Your task to perform on an android device: open app "AliExpress" Image 0: 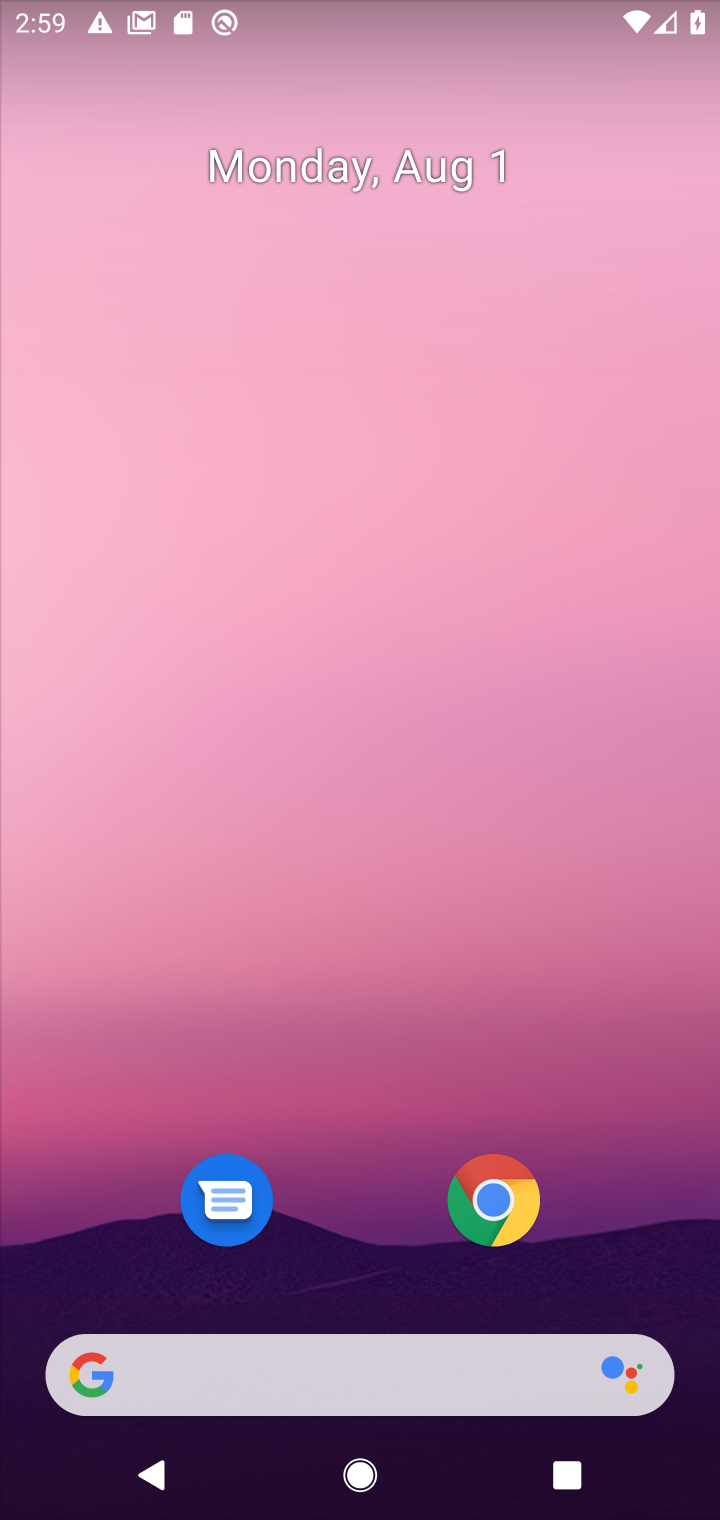
Step 0: drag from (363, 1290) to (479, 45)
Your task to perform on an android device: open app "AliExpress" Image 1: 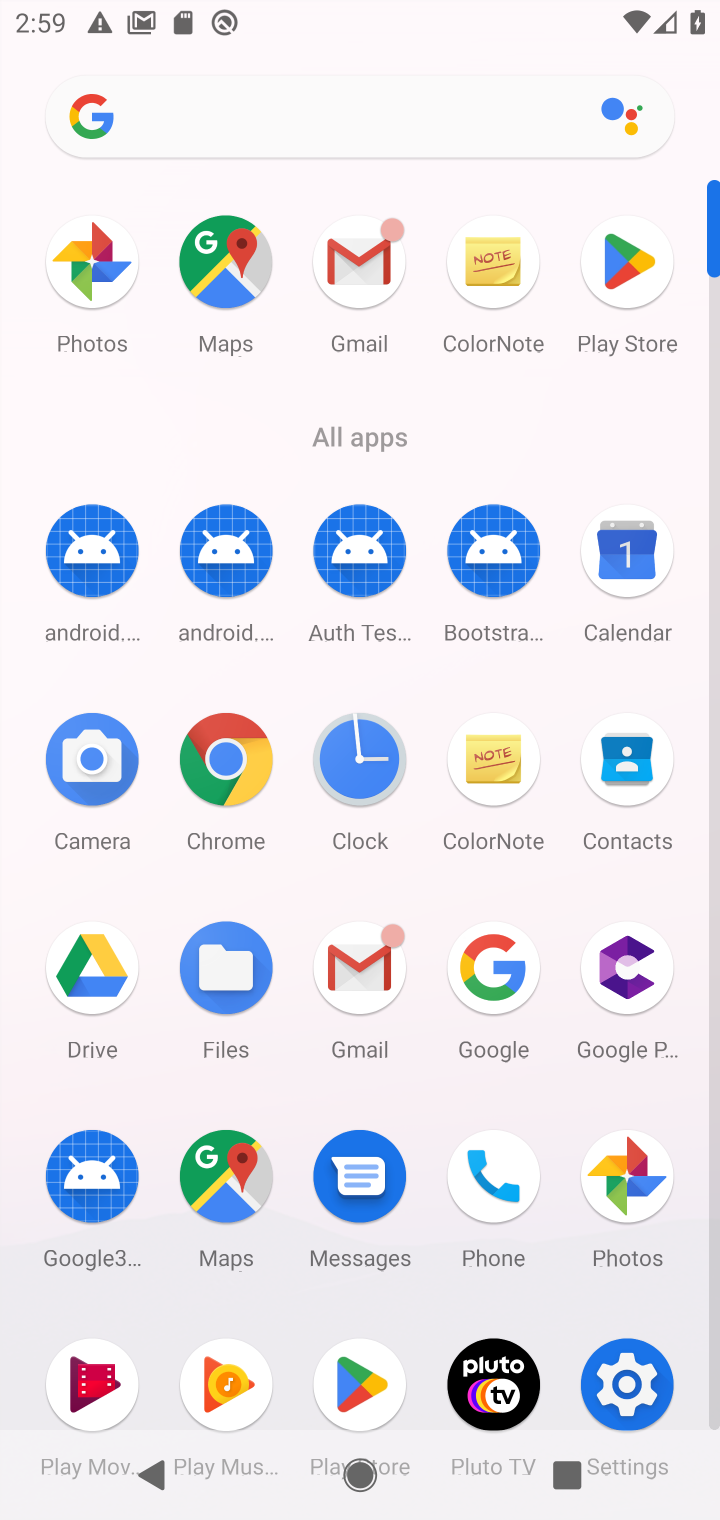
Step 1: click (618, 288)
Your task to perform on an android device: open app "AliExpress" Image 2: 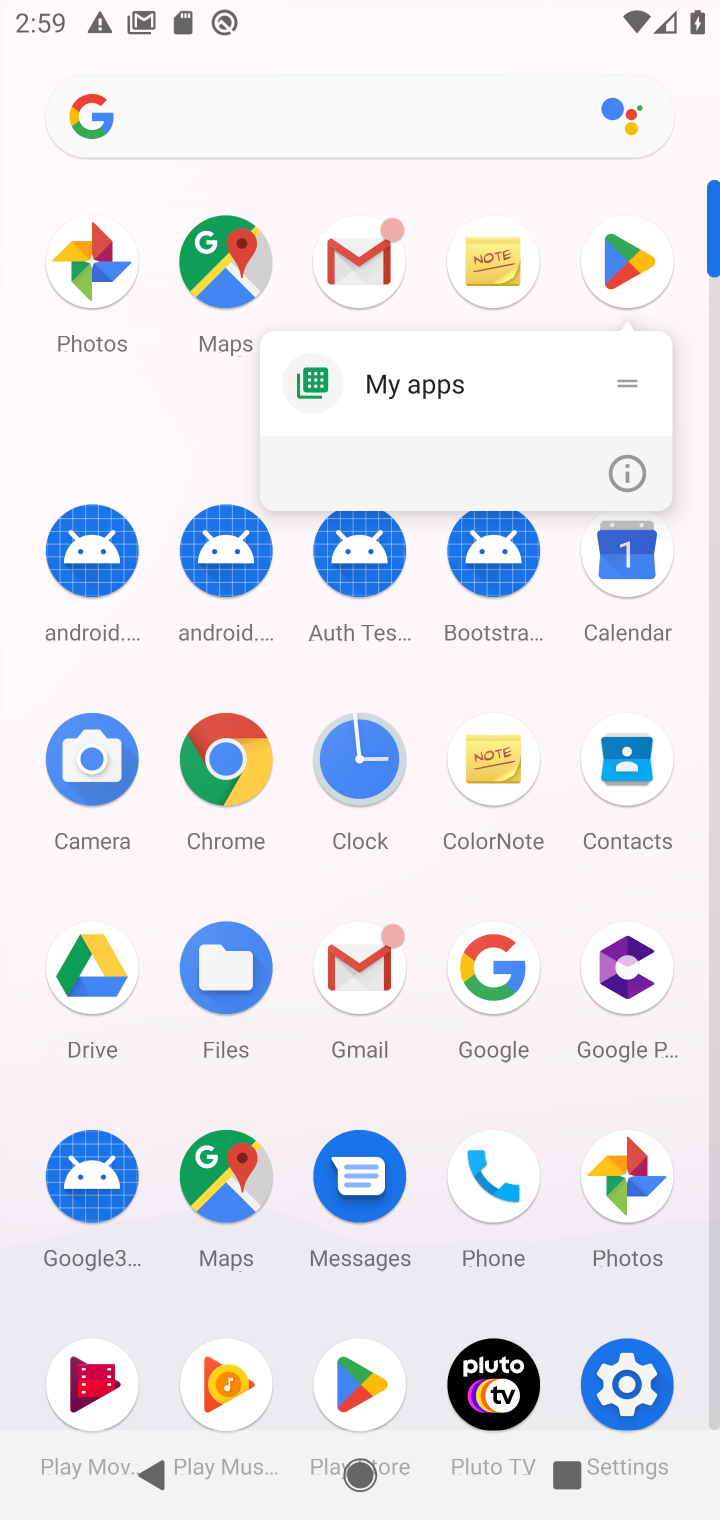
Step 2: click (645, 287)
Your task to perform on an android device: open app "AliExpress" Image 3: 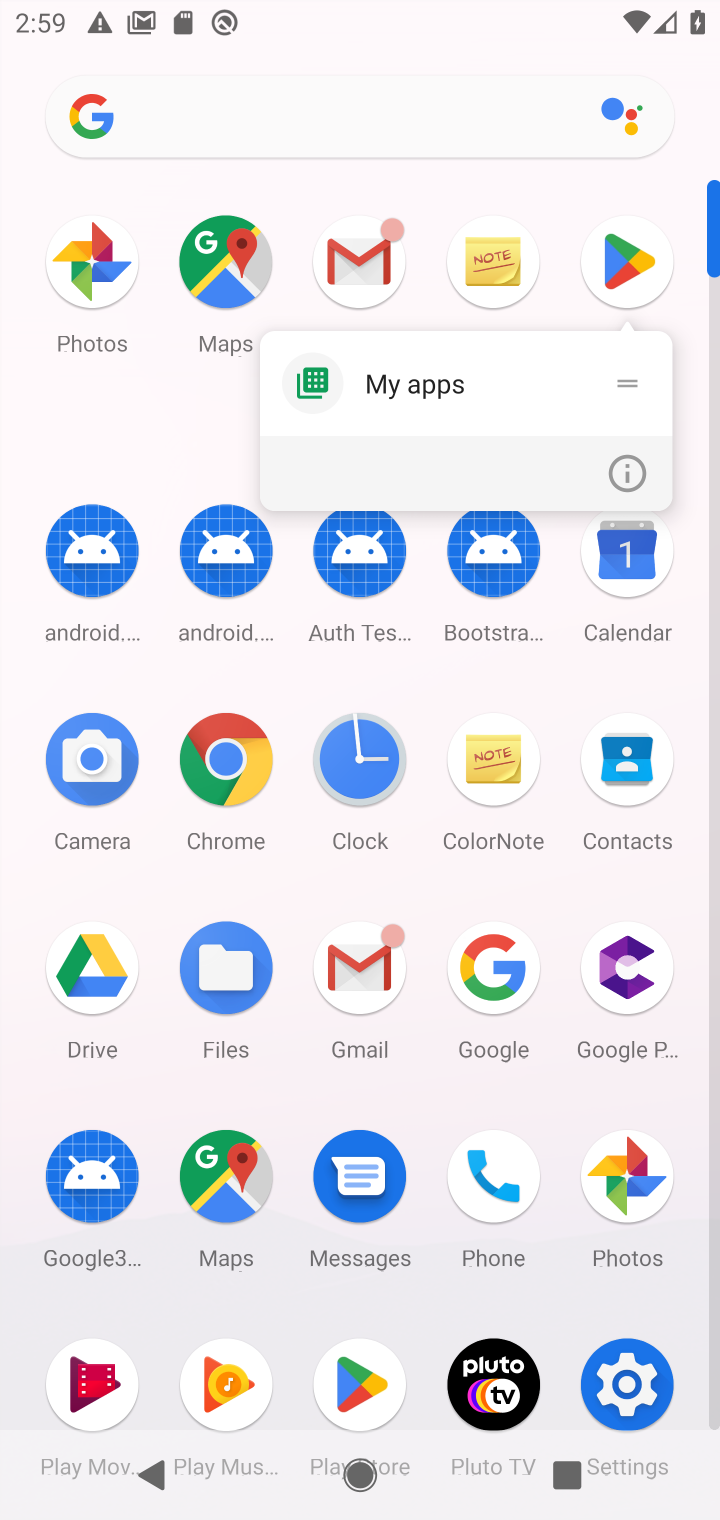
Step 3: click (645, 287)
Your task to perform on an android device: open app "AliExpress" Image 4: 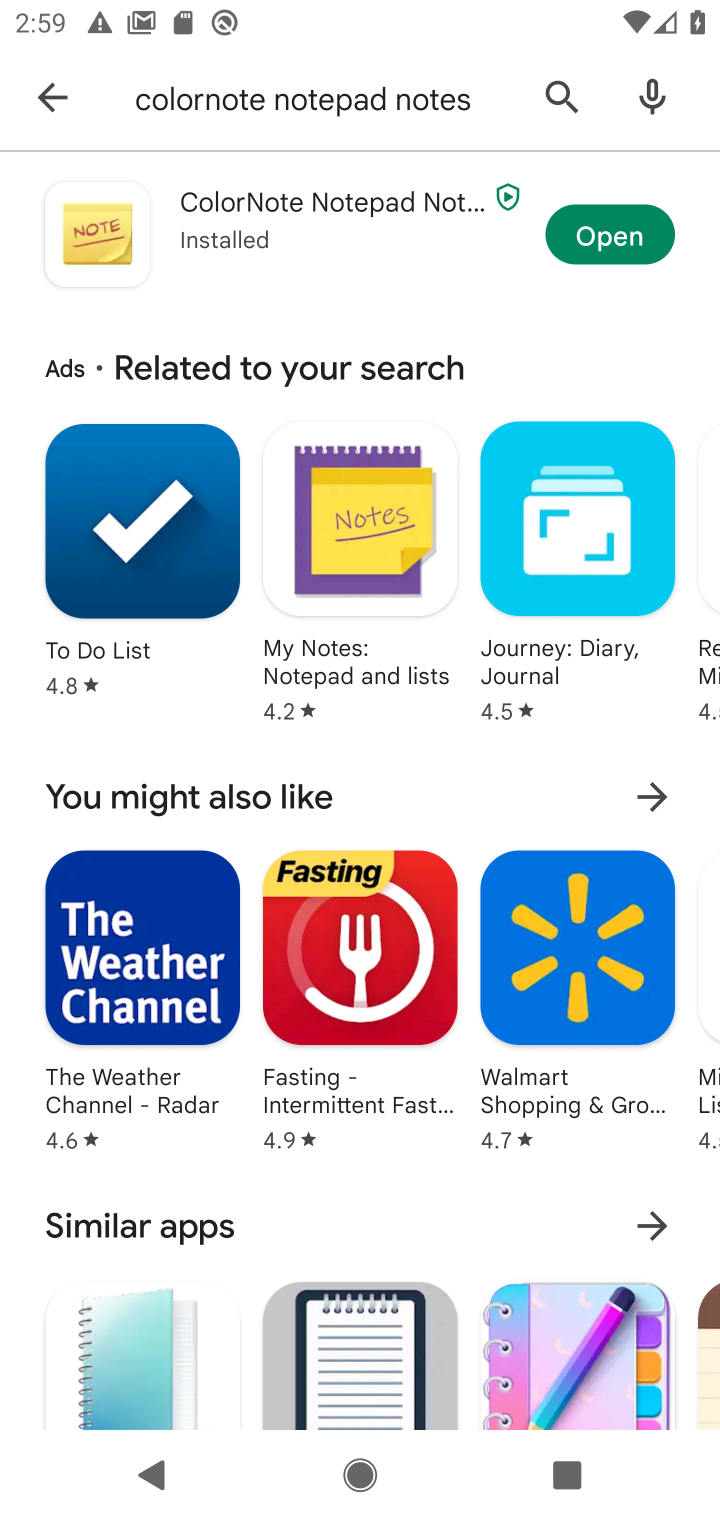
Step 4: click (289, 84)
Your task to perform on an android device: open app "AliExpress" Image 5: 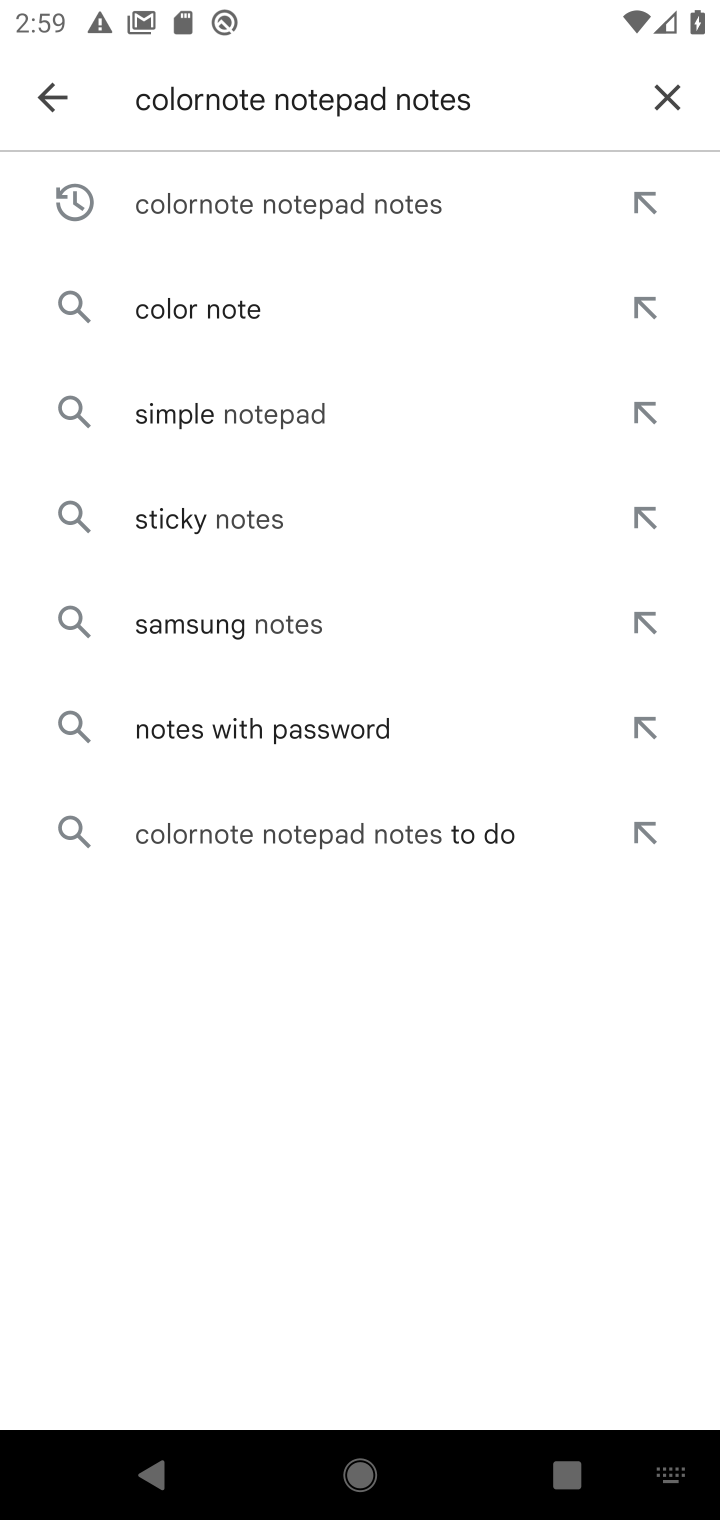
Step 5: click (668, 86)
Your task to perform on an android device: open app "AliExpress" Image 6: 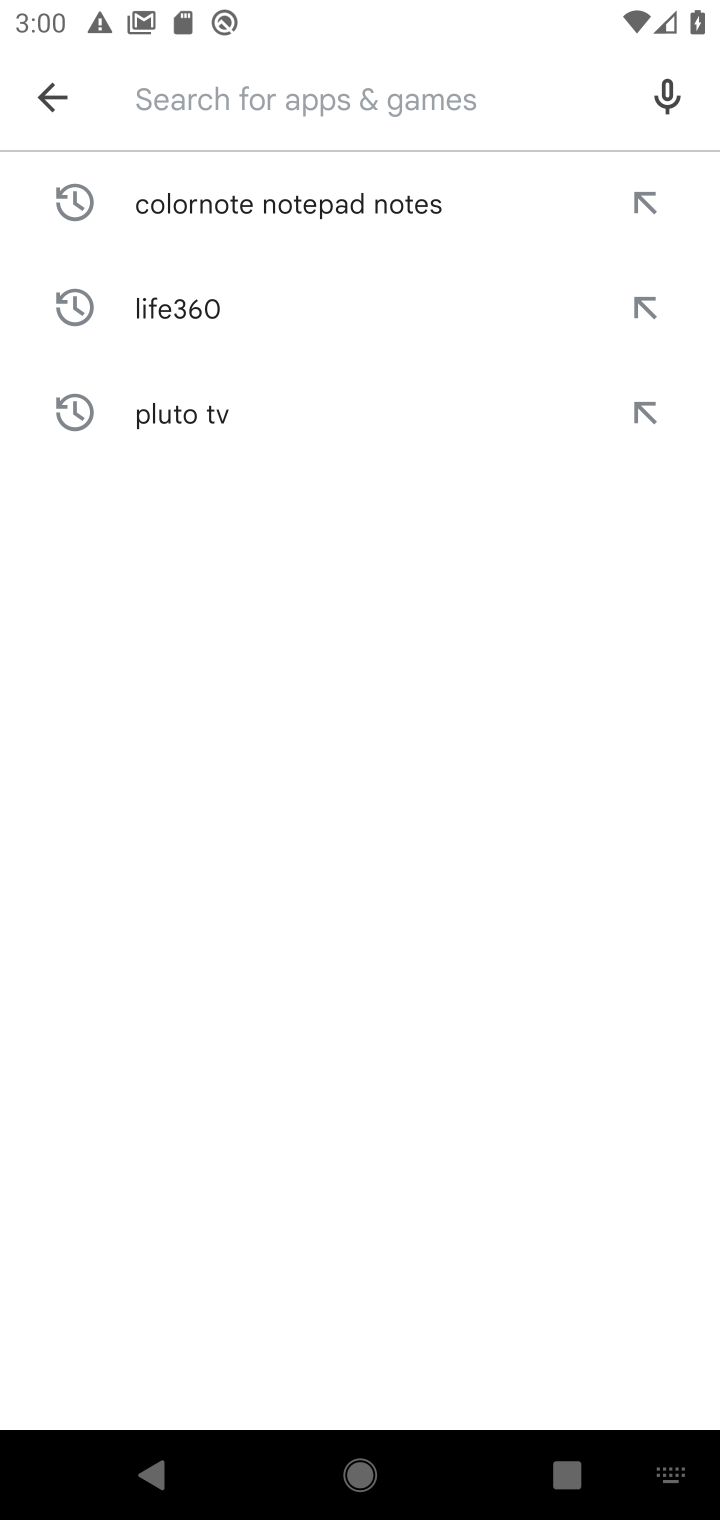
Step 6: type "Ali Express"
Your task to perform on an android device: open app "AliExpress" Image 7: 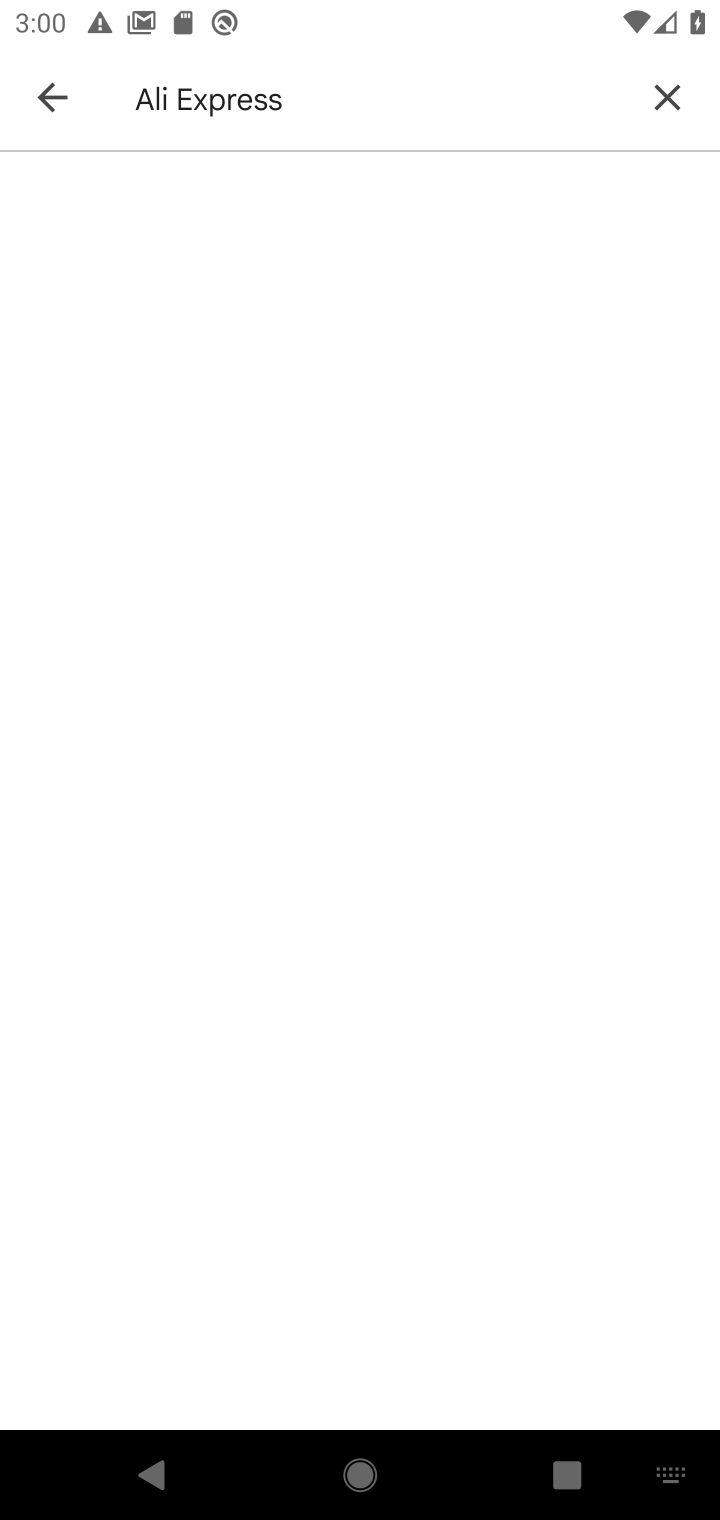
Step 7: click (239, 290)
Your task to perform on an android device: open app "AliExpress" Image 8: 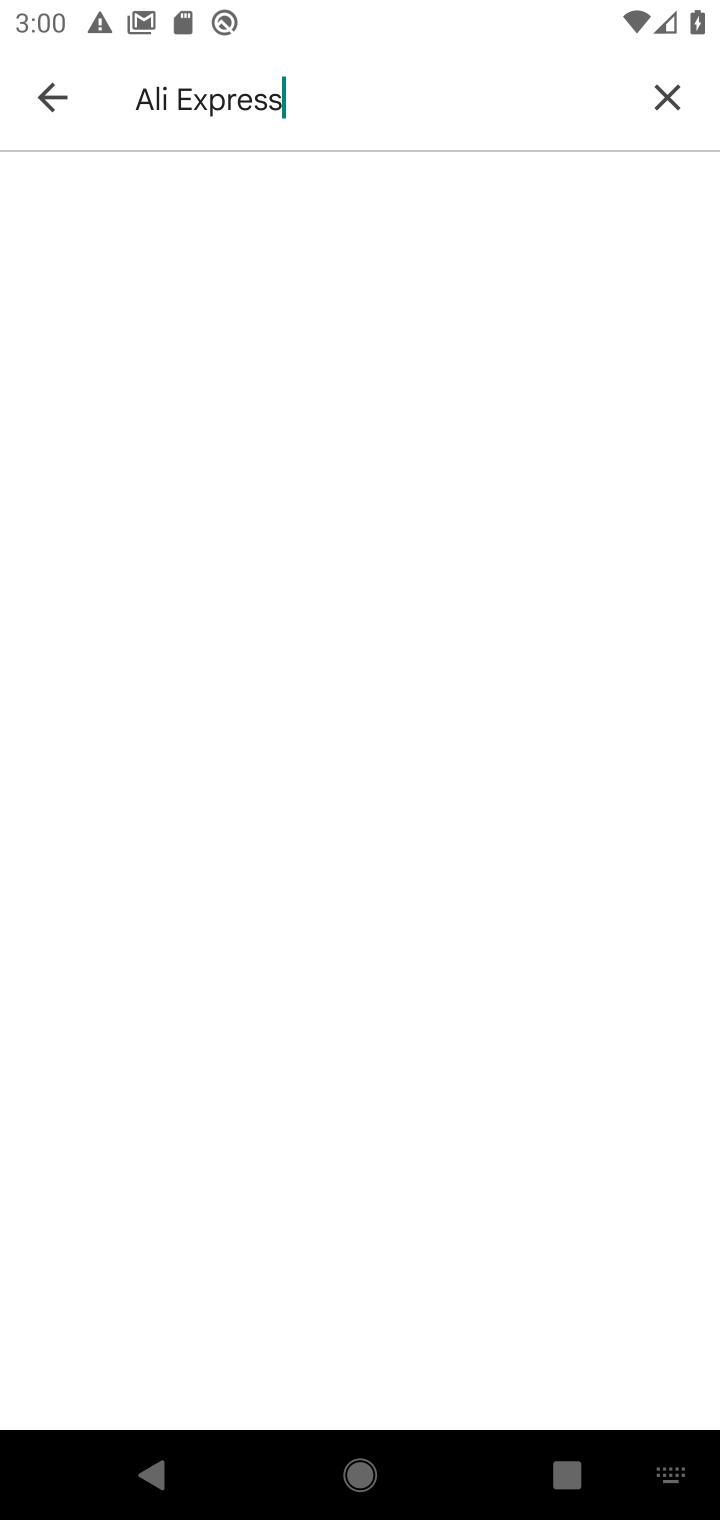
Step 8: click (241, 292)
Your task to perform on an android device: open app "AliExpress" Image 9: 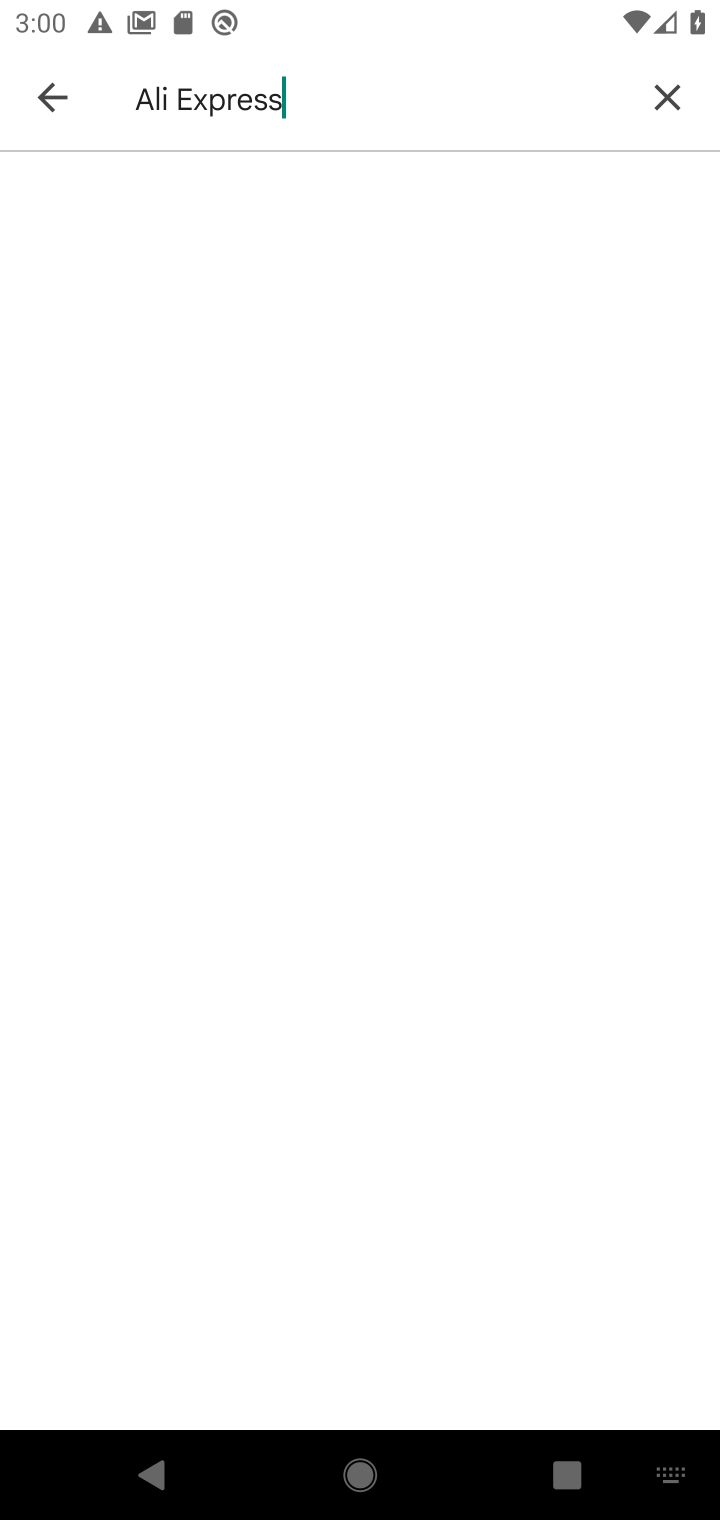
Step 9: click (241, 309)
Your task to perform on an android device: open app "AliExpress" Image 10: 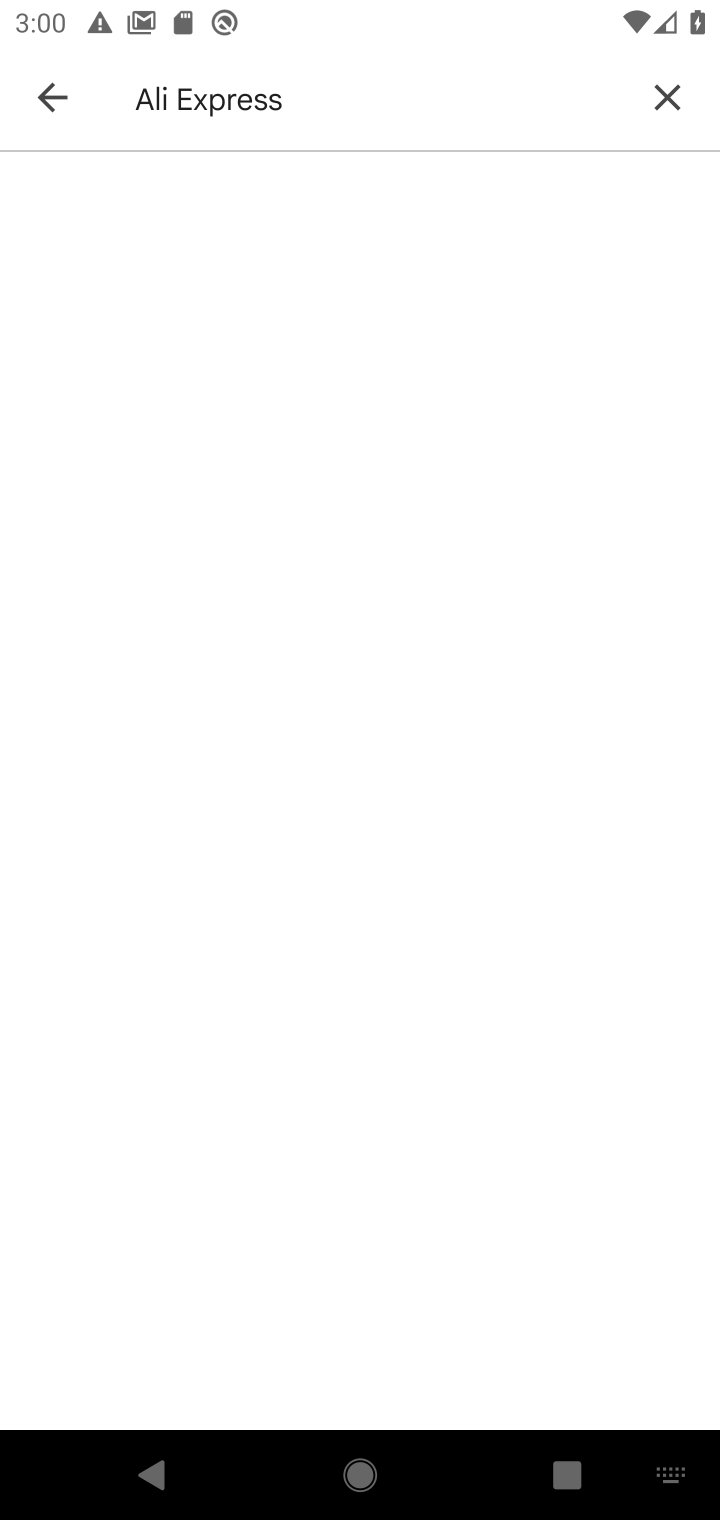
Step 10: click (197, 354)
Your task to perform on an android device: open app "AliExpress" Image 11: 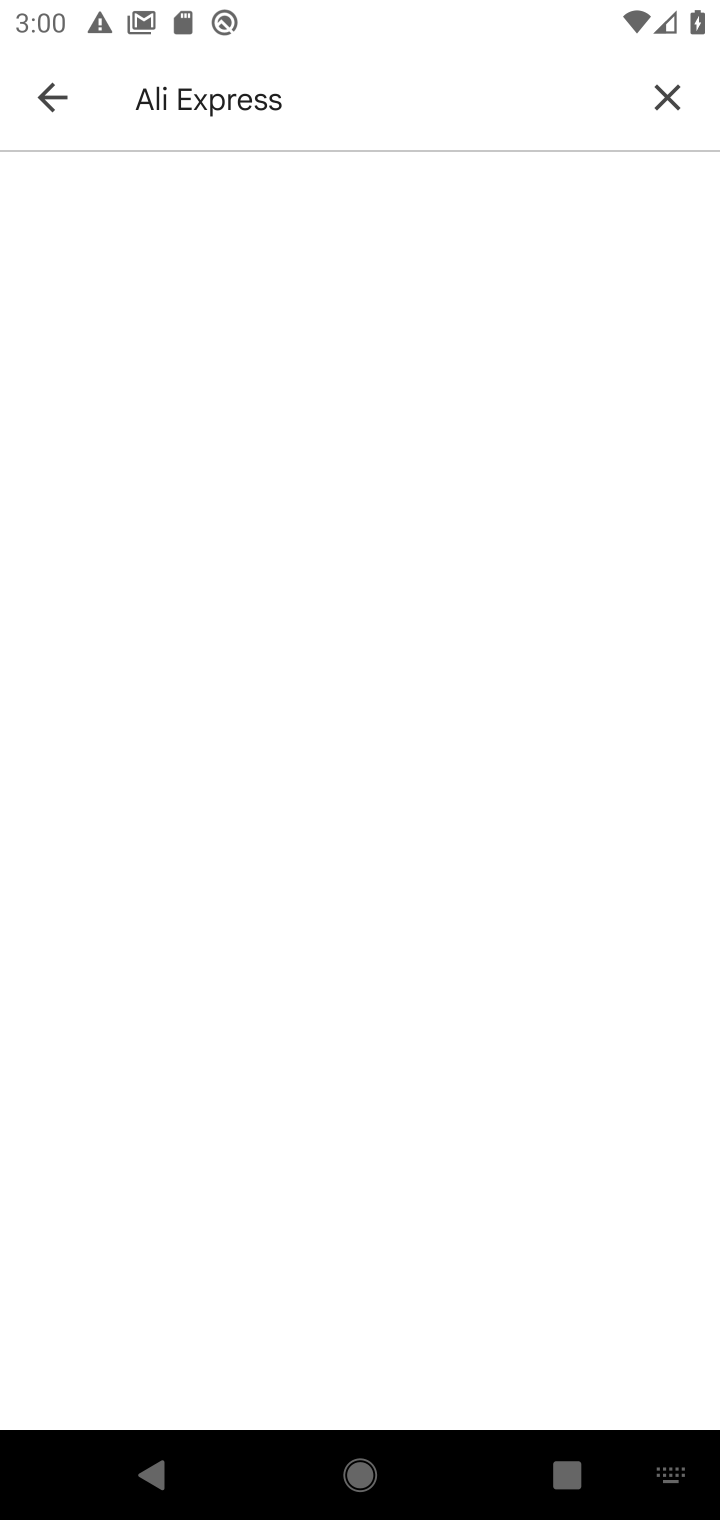
Step 11: task complete